Your task to perform on an android device: change keyboard looks Image 0: 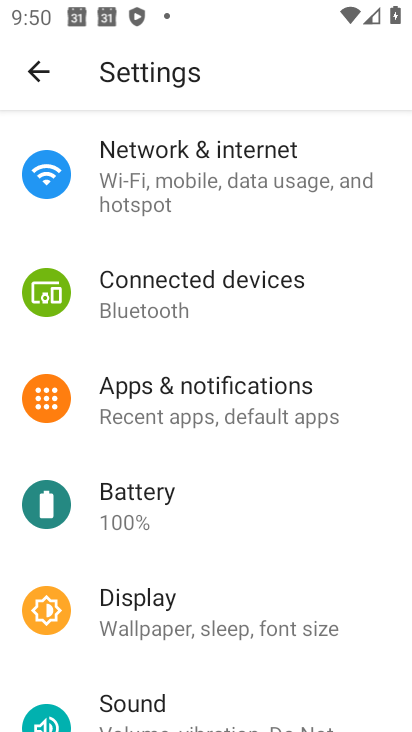
Step 0: drag from (253, 588) to (316, 113)
Your task to perform on an android device: change keyboard looks Image 1: 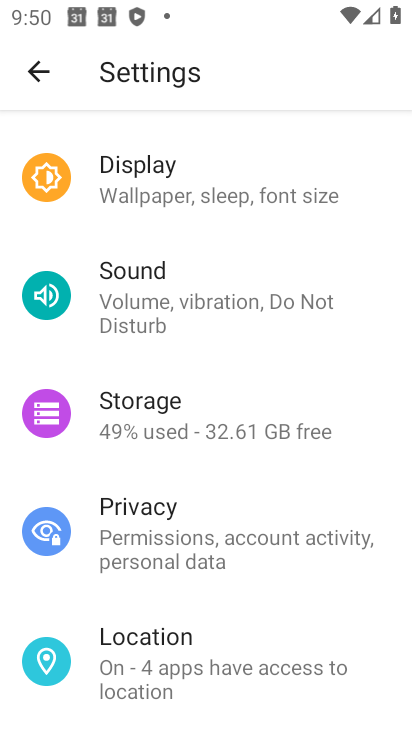
Step 1: drag from (209, 591) to (336, 147)
Your task to perform on an android device: change keyboard looks Image 2: 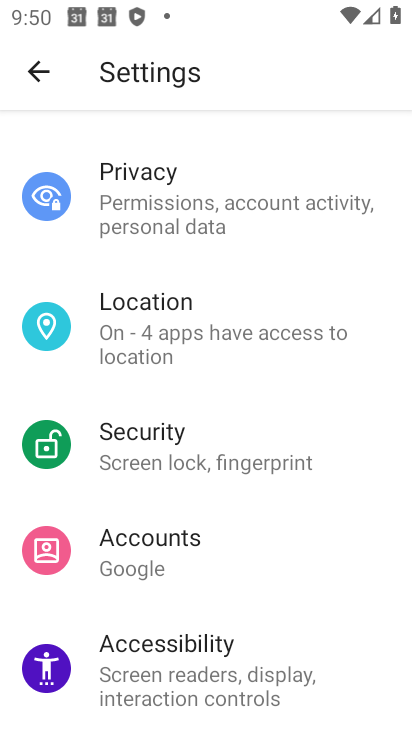
Step 2: drag from (203, 620) to (328, 235)
Your task to perform on an android device: change keyboard looks Image 3: 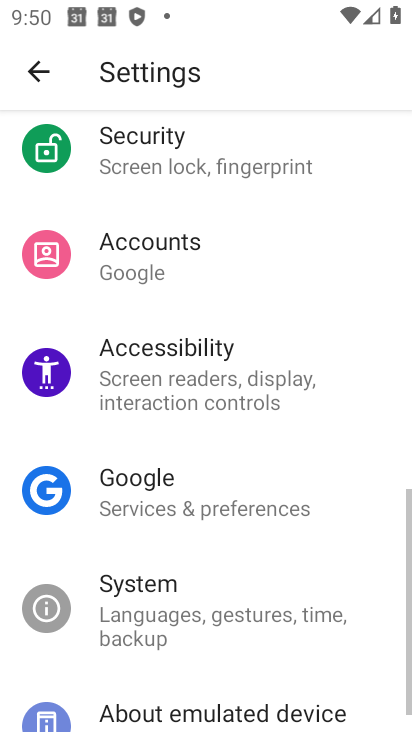
Step 3: drag from (228, 566) to (192, 725)
Your task to perform on an android device: change keyboard looks Image 4: 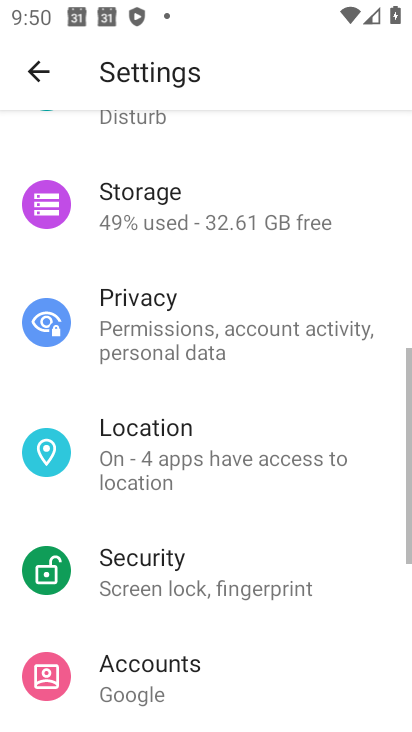
Step 4: drag from (225, 416) to (227, 709)
Your task to perform on an android device: change keyboard looks Image 5: 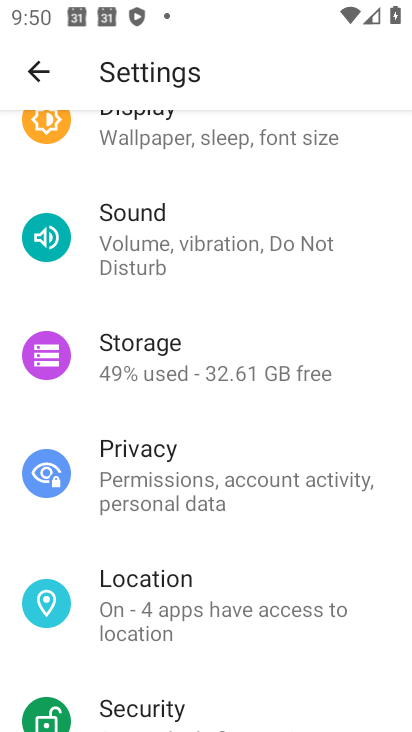
Step 5: drag from (150, 123) to (234, 574)
Your task to perform on an android device: change keyboard looks Image 6: 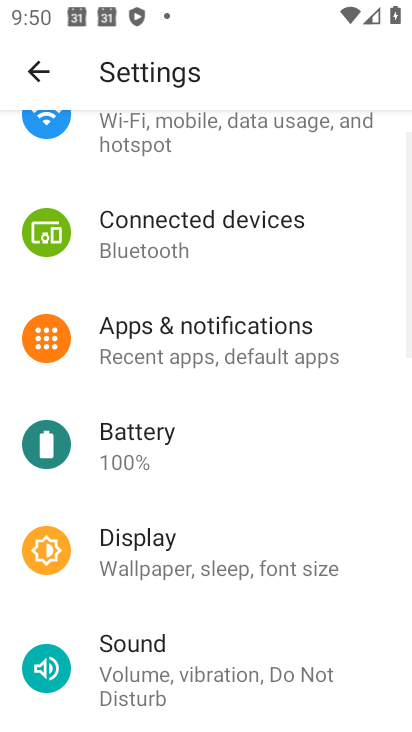
Step 6: click (264, 298)
Your task to perform on an android device: change keyboard looks Image 7: 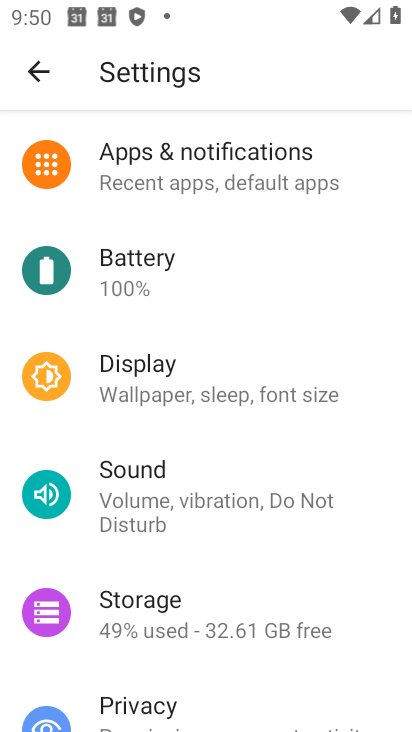
Step 7: drag from (259, 520) to (301, 252)
Your task to perform on an android device: change keyboard looks Image 8: 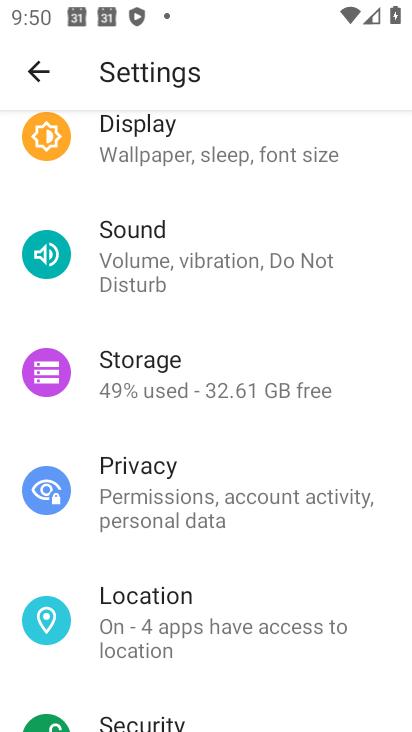
Step 8: drag from (257, 466) to (288, 278)
Your task to perform on an android device: change keyboard looks Image 9: 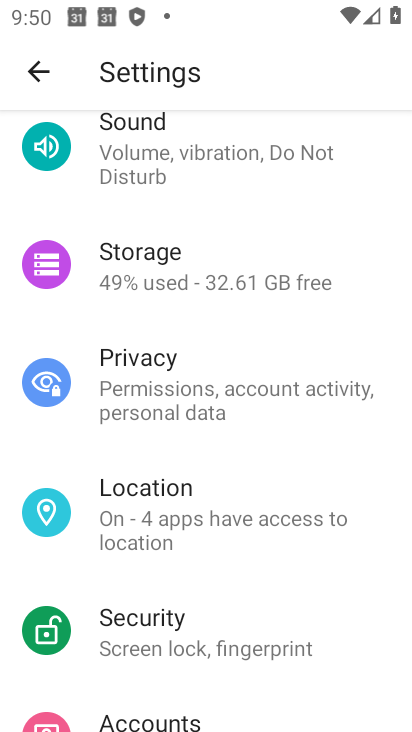
Step 9: drag from (213, 560) to (268, 238)
Your task to perform on an android device: change keyboard looks Image 10: 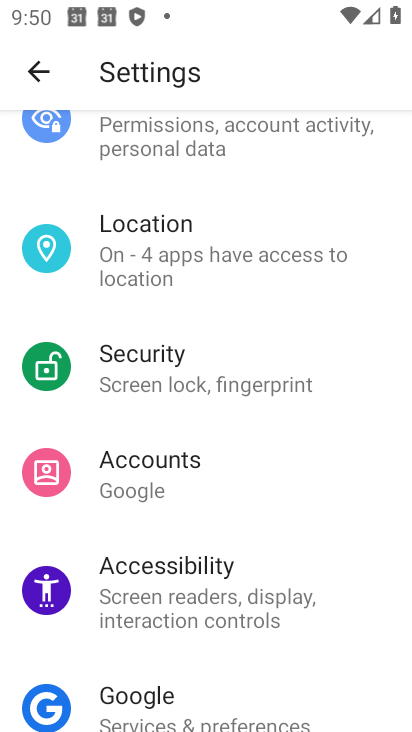
Step 10: drag from (197, 514) to (279, 202)
Your task to perform on an android device: change keyboard looks Image 11: 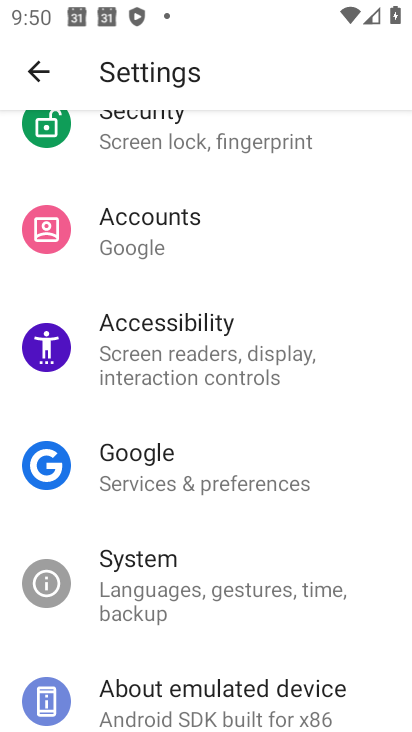
Step 11: click (132, 574)
Your task to perform on an android device: change keyboard looks Image 12: 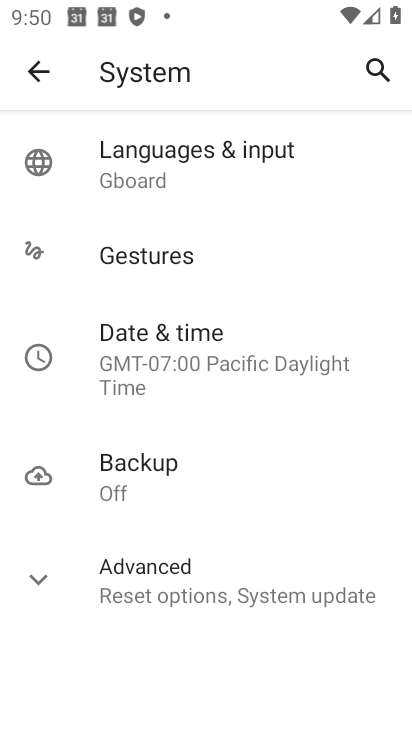
Step 12: click (215, 171)
Your task to perform on an android device: change keyboard looks Image 13: 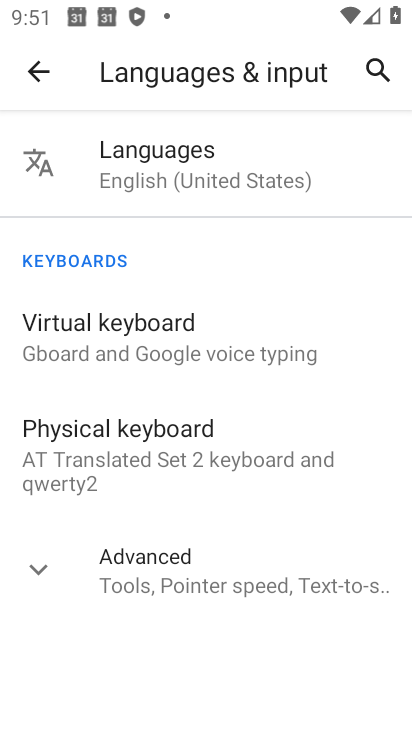
Step 13: click (169, 345)
Your task to perform on an android device: change keyboard looks Image 14: 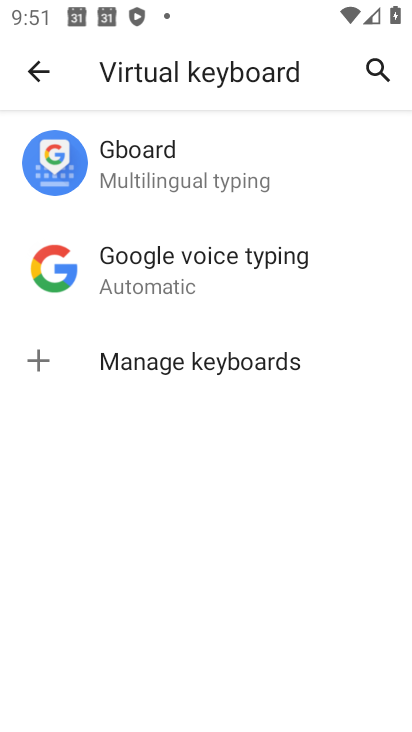
Step 14: click (195, 188)
Your task to perform on an android device: change keyboard looks Image 15: 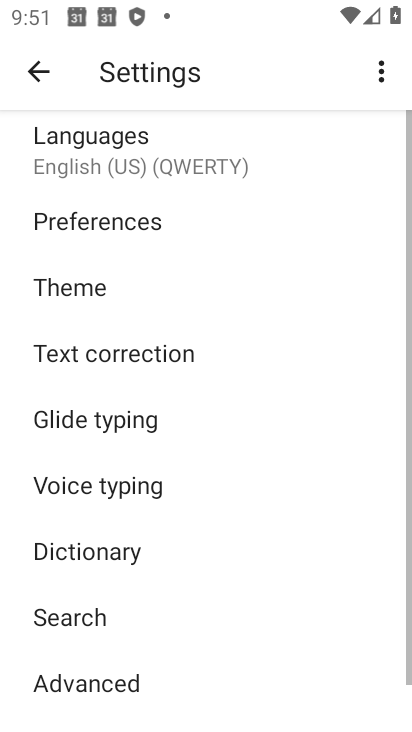
Step 15: click (101, 293)
Your task to perform on an android device: change keyboard looks Image 16: 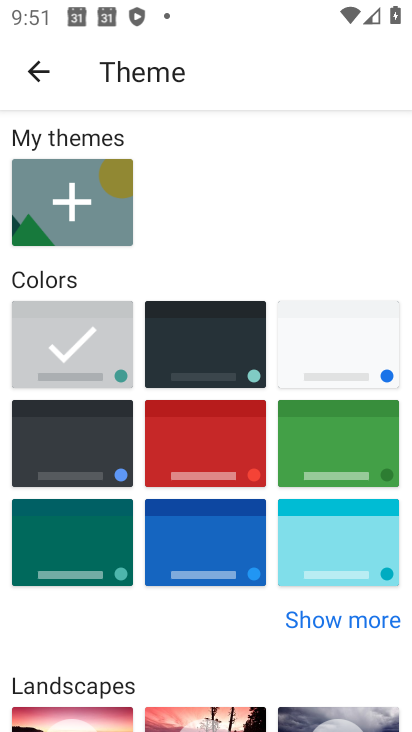
Step 16: click (329, 349)
Your task to perform on an android device: change keyboard looks Image 17: 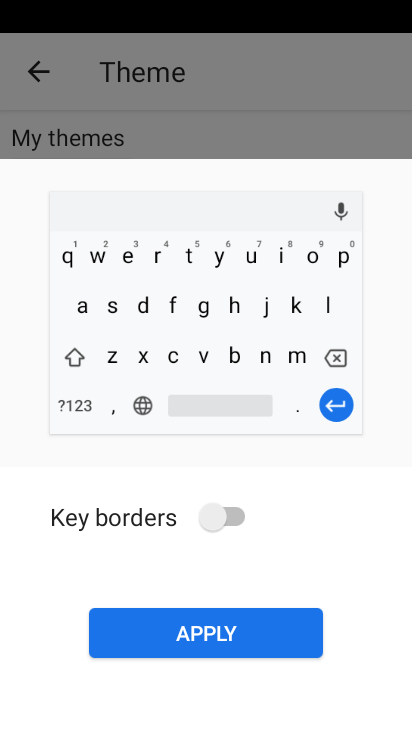
Step 17: click (217, 652)
Your task to perform on an android device: change keyboard looks Image 18: 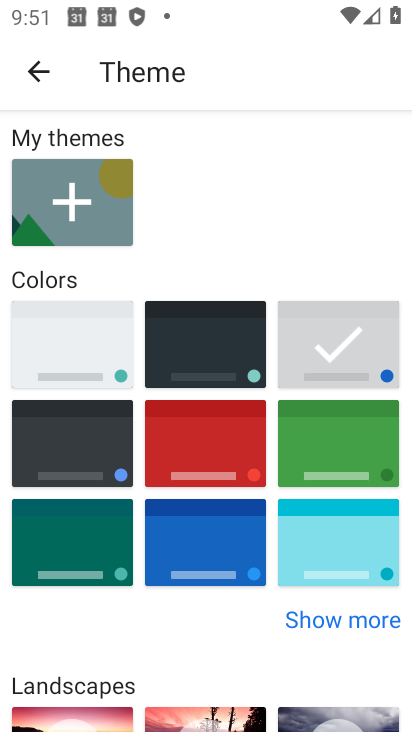
Step 18: task complete